Your task to perform on an android device: set the timer Image 0: 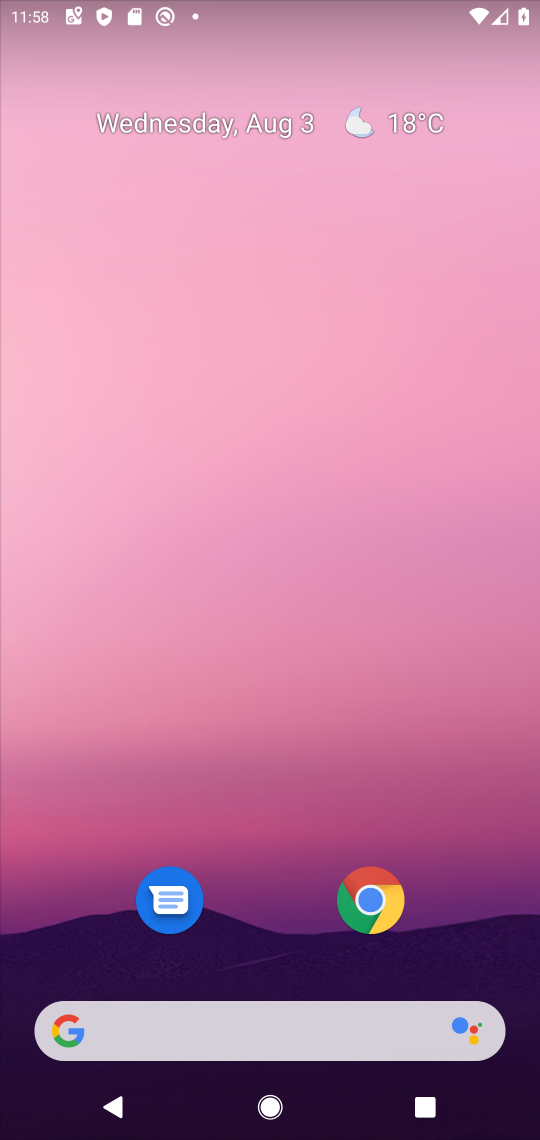
Step 0: press home button
Your task to perform on an android device: set the timer Image 1: 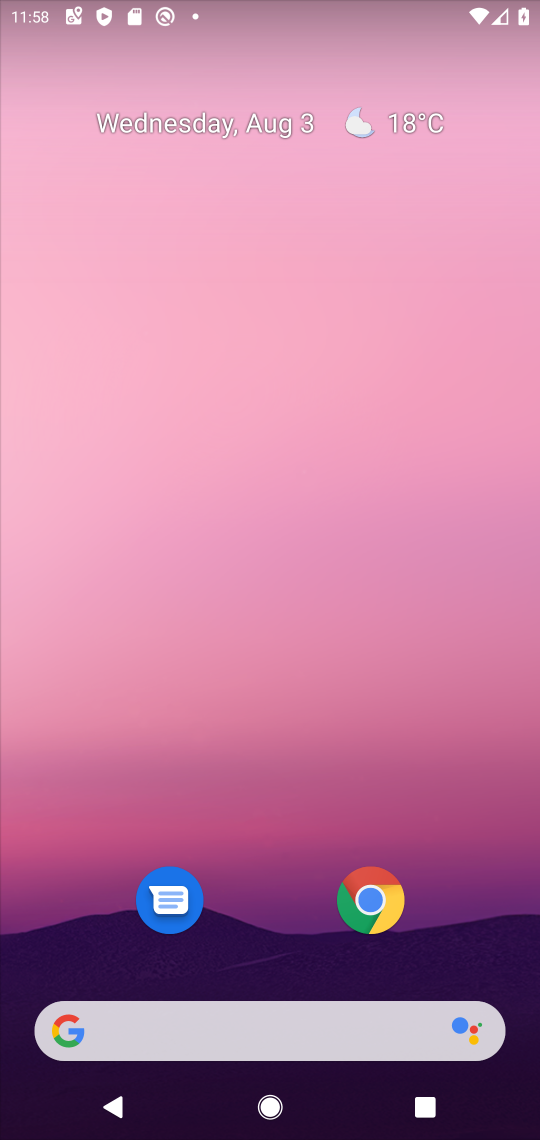
Step 1: click (363, 176)
Your task to perform on an android device: set the timer Image 2: 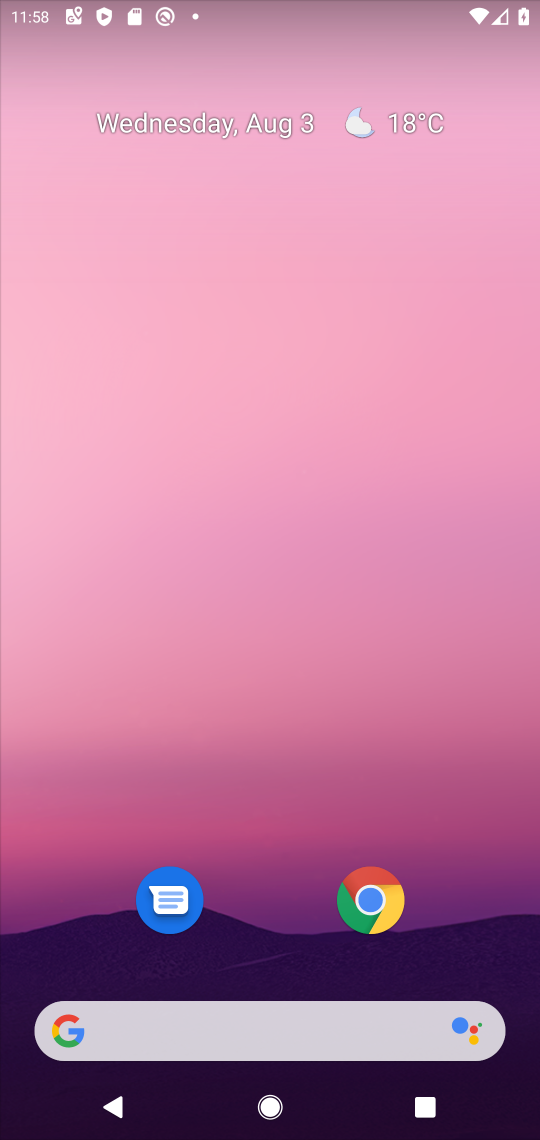
Step 2: drag from (266, 889) to (345, 90)
Your task to perform on an android device: set the timer Image 3: 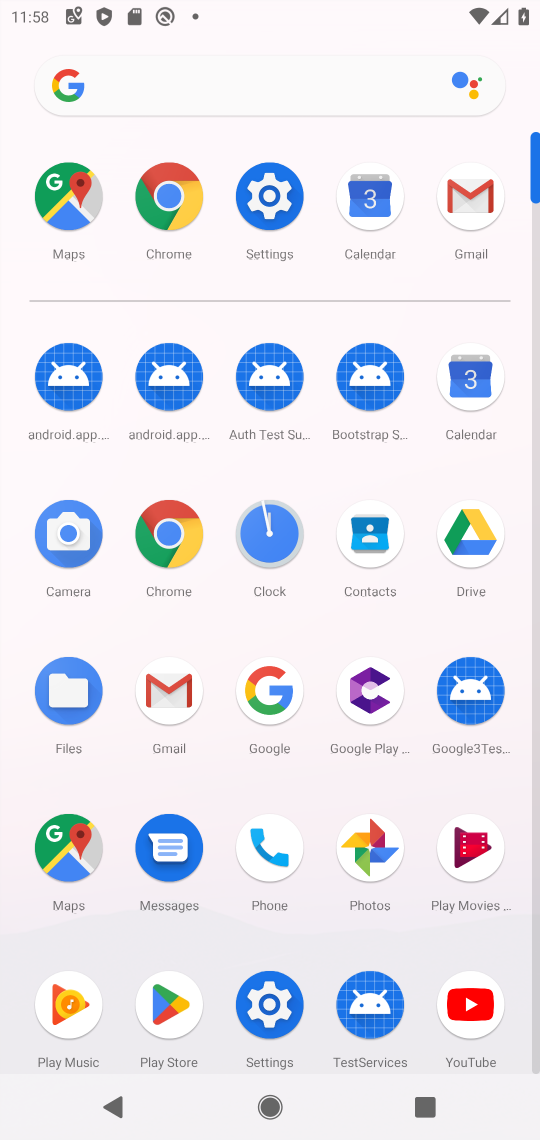
Step 3: click (259, 536)
Your task to perform on an android device: set the timer Image 4: 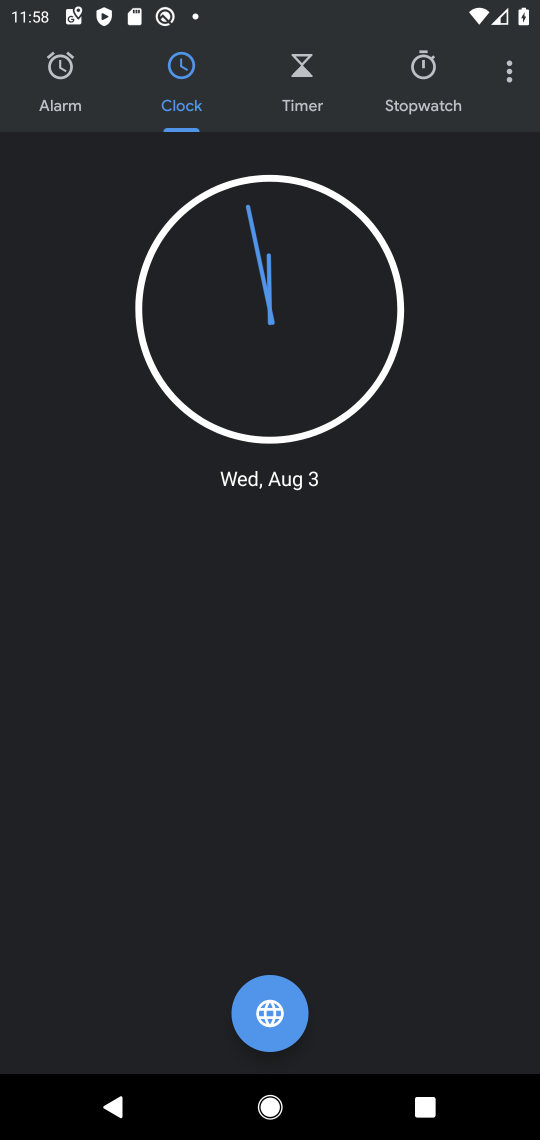
Step 4: click (290, 92)
Your task to perform on an android device: set the timer Image 5: 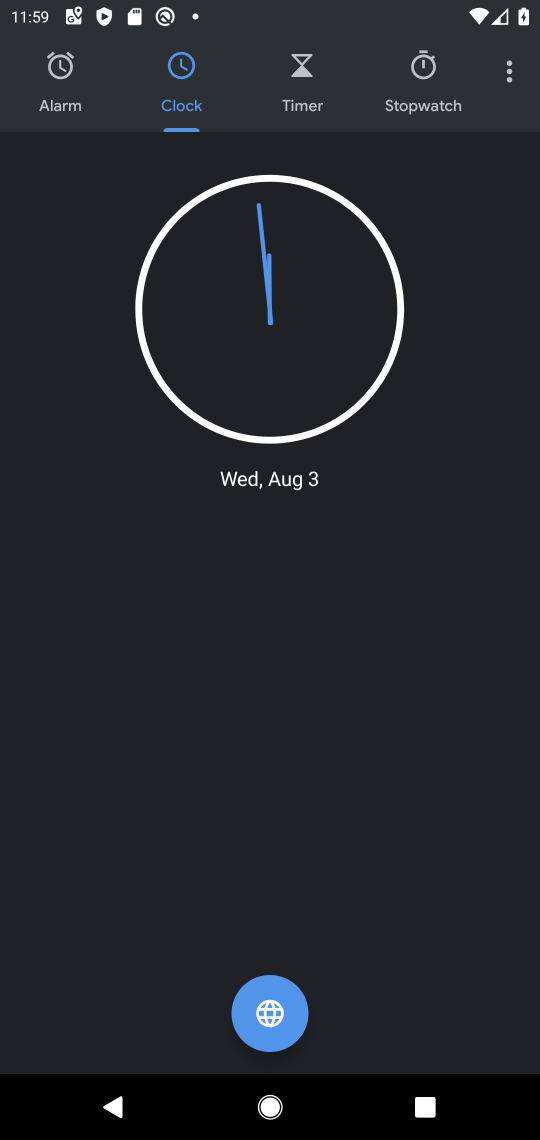
Step 5: click (289, 92)
Your task to perform on an android device: set the timer Image 6: 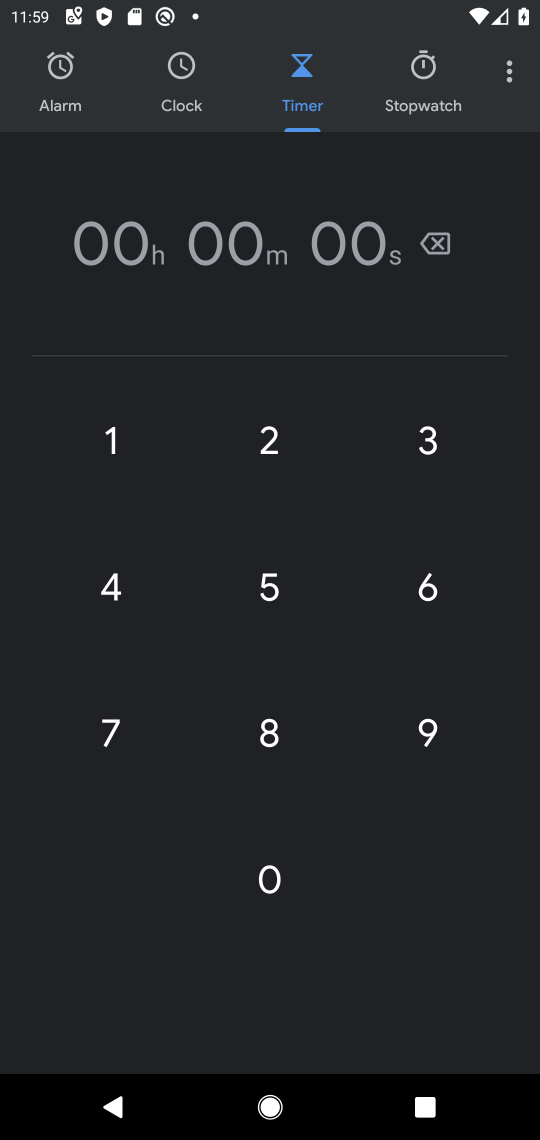
Step 6: click (268, 436)
Your task to perform on an android device: set the timer Image 7: 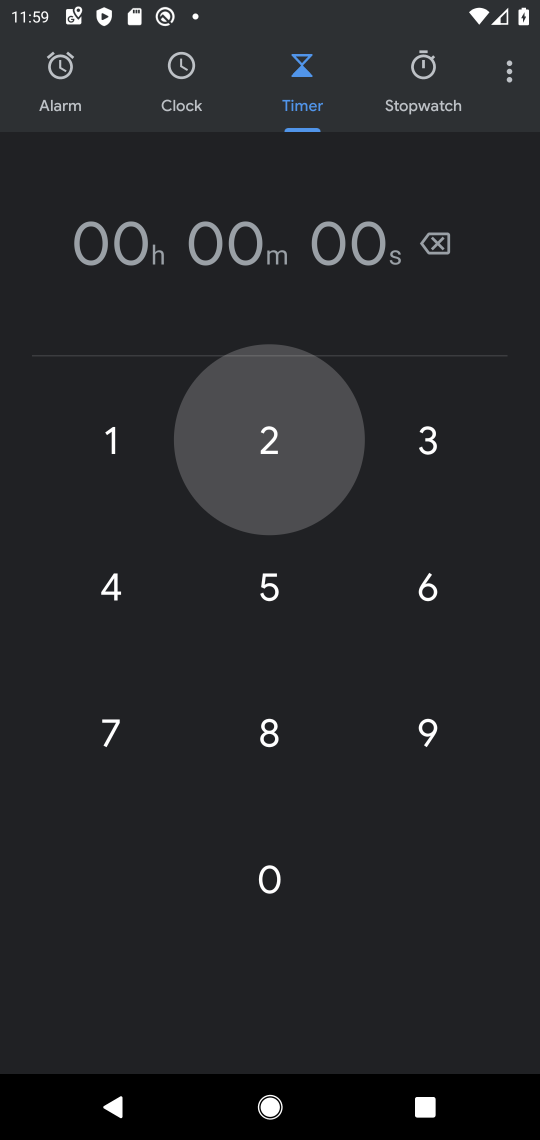
Step 7: click (268, 578)
Your task to perform on an android device: set the timer Image 8: 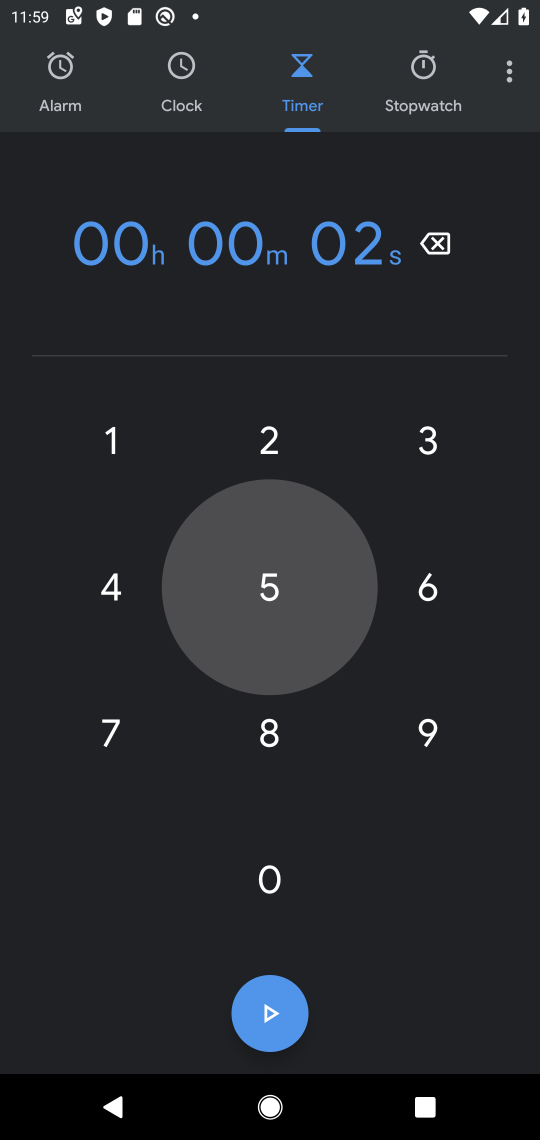
Step 8: click (420, 453)
Your task to perform on an android device: set the timer Image 9: 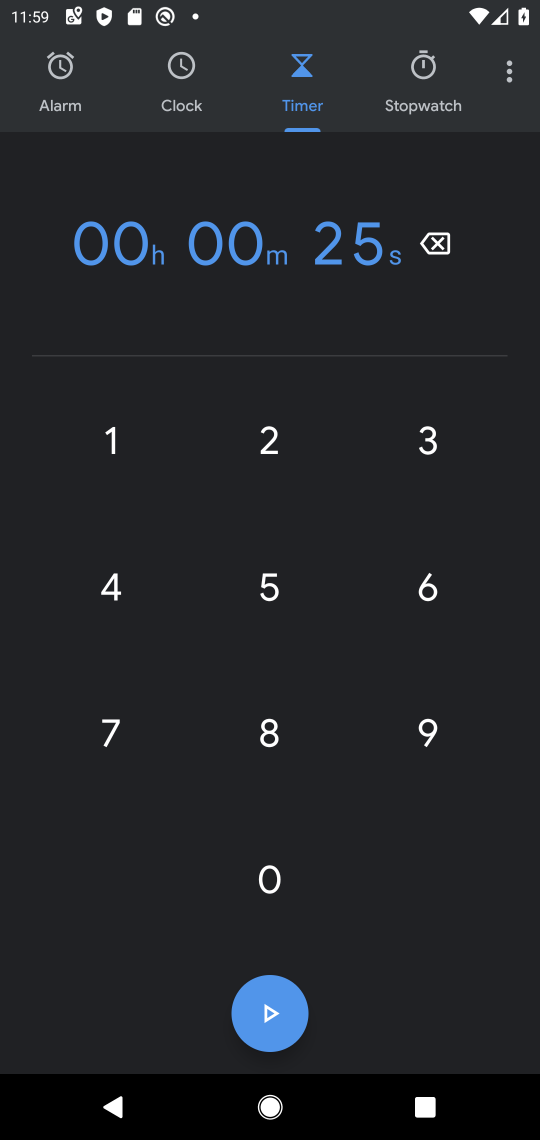
Step 9: click (420, 453)
Your task to perform on an android device: set the timer Image 10: 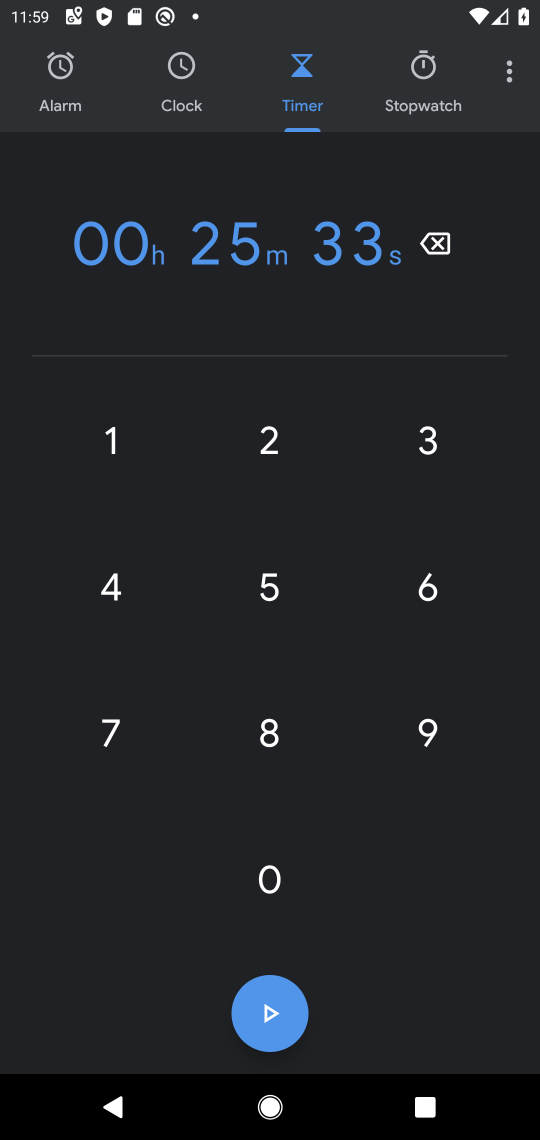
Step 10: click (288, 760)
Your task to perform on an android device: set the timer Image 11: 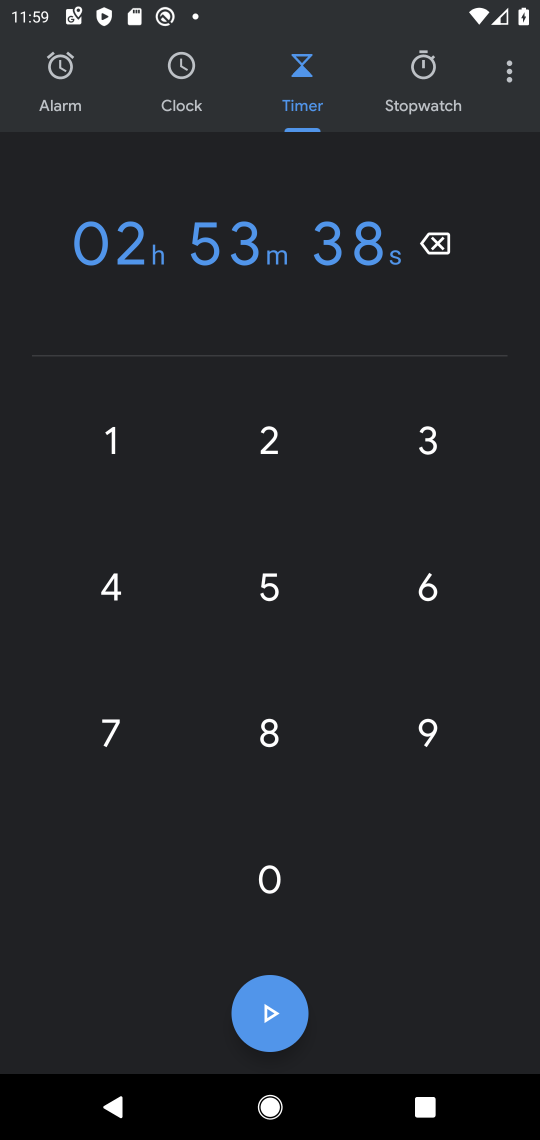
Step 11: click (269, 982)
Your task to perform on an android device: set the timer Image 12: 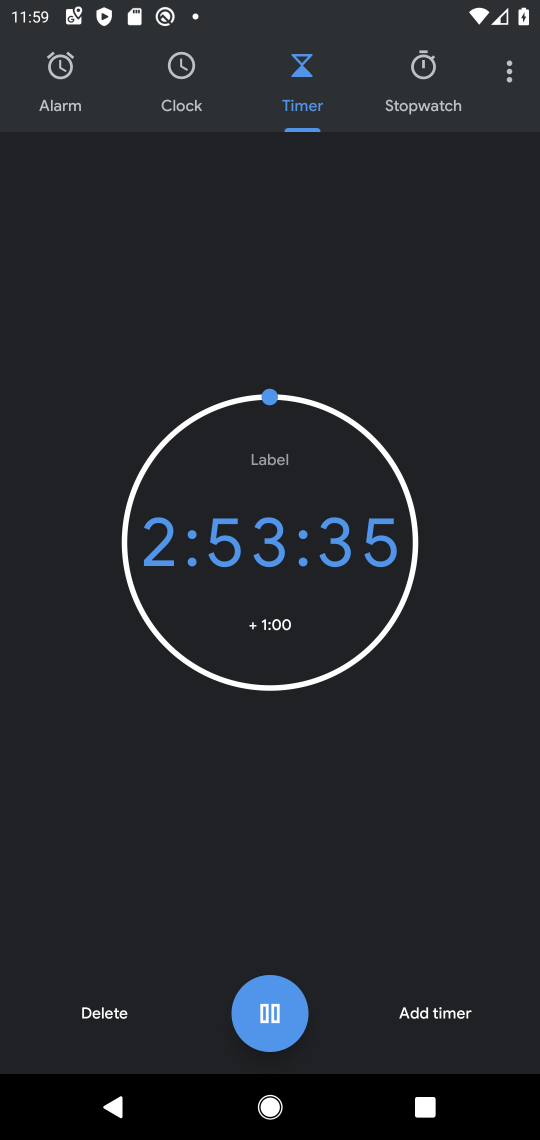
Step 12: task complete